Your task to perform on an android device: Open the map Image 0: 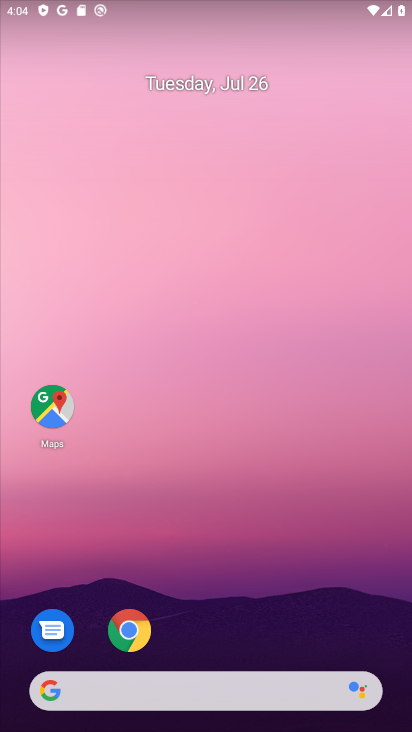
Step 0: drag from (268, 692) to (280, 108)
Your task to perform on an android device: Open the map Image 1: 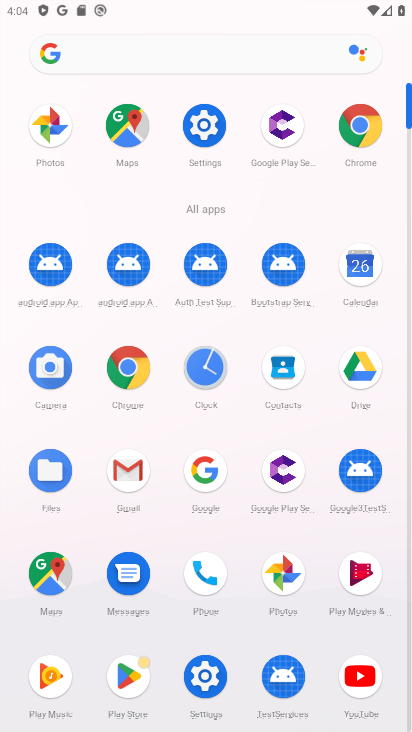
Step 1: click (127, 136)
Your task to perform on an android device: Open the map Image 2: 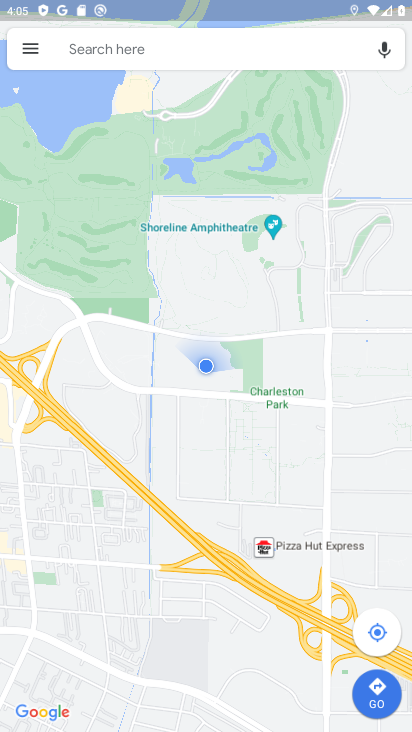
Step 2: task complete